Your task to perform on an android device: Set the phone to "Do not disturb". Image 0: 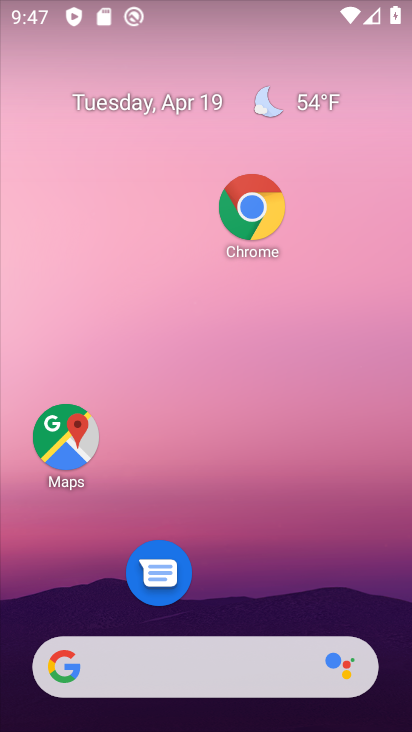
Step 0: drag from (214, 635) to (315, 229)
Your task to perform on an android device: Set the phone to "Do not disturb". Image 1: 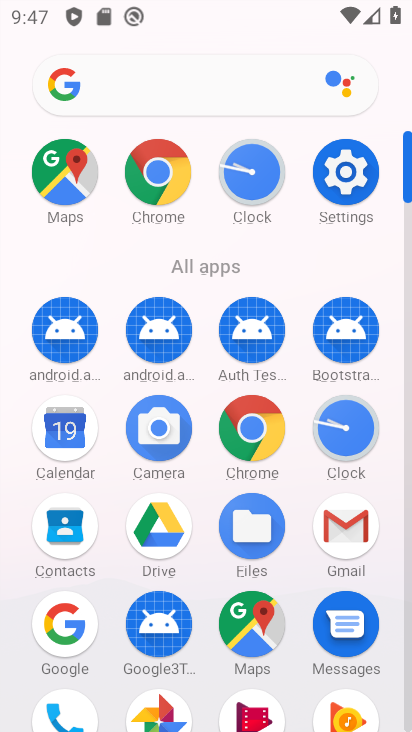
Step 1: click (341, 174)
Your task to perform on an android device: Set the phone to "Do not disturb". Image 2: 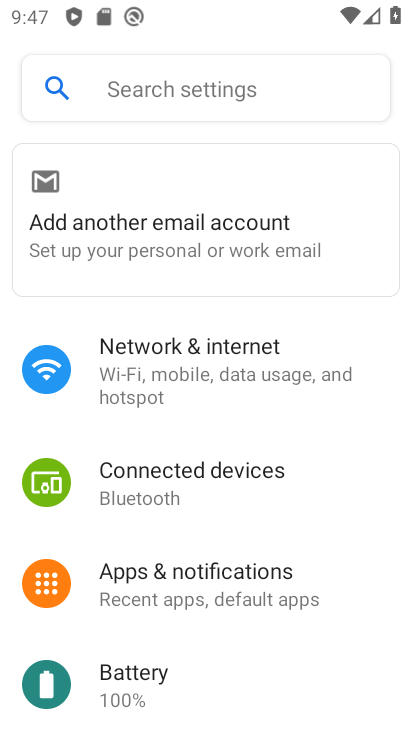
Step 2: drag from (228, 588) to (279, 275)
Your task to perform on an android device: Set the phone to "Do not disturb". Image 3: 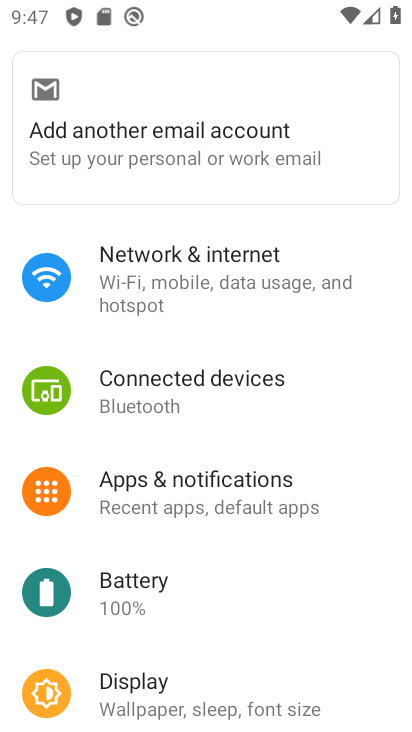
Step 3: drag from (240, 668) to (243, 301)
Your task to perform on an android device: Set the phone to "Do not disturb". Image 4: 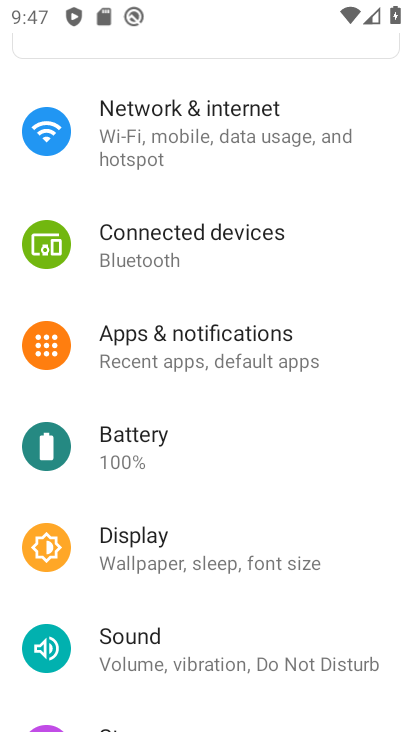
Step 4: click (237, 666)
Your task to perform on an android device: Set the phone to "Do not disturb". Image 5: 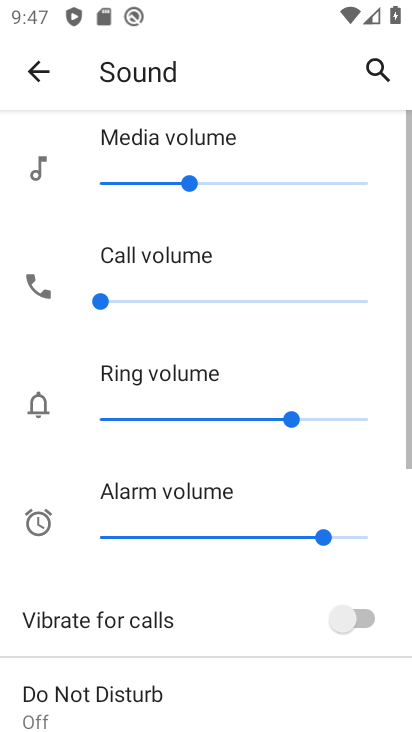
Step 5: drag from (229, 698) to (300, 403)
Your task to perform on an android device: Set the phone to "Do not disturb". Image 6: 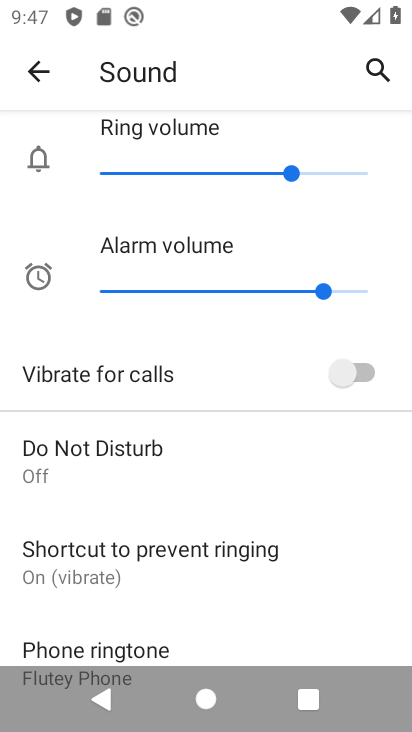
Step 6: click (75, 459)
Your task to perform on an android device: Set the phone to "Do not disturb". Image 7: 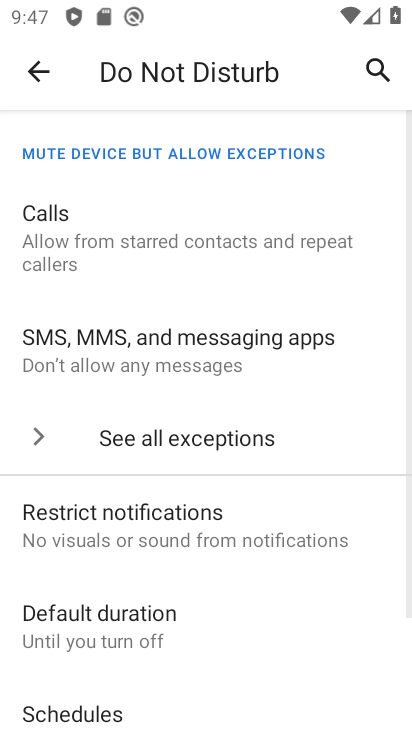
Step 7: drag from (174, 627) to (251, 341)
Your task to perform on an android device: Set the phone to "Do not disturb". Image 8: 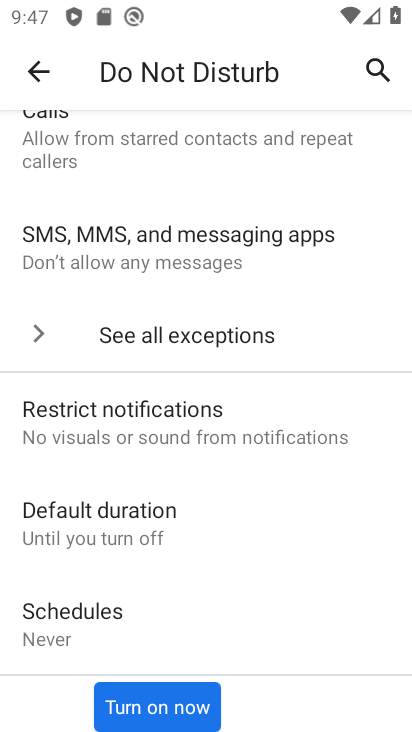
Step 8: click (179, 715)
Your task to perform on an android device: Set the phone to "Do not disturb". Image 9: 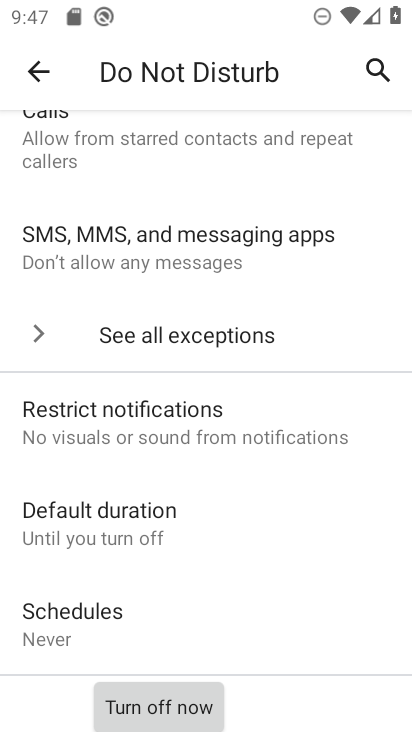
Step 9: task complete